Your task to perform on an android device: see creations saved in the google photos Image 0: 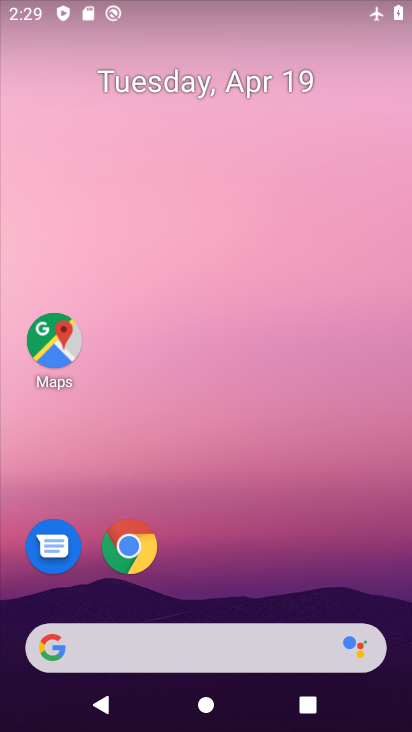
Step 0: drag from (232, 541) to (263, 16)
Your task to perform on an android device: see creations saved in the google photos Image 1: 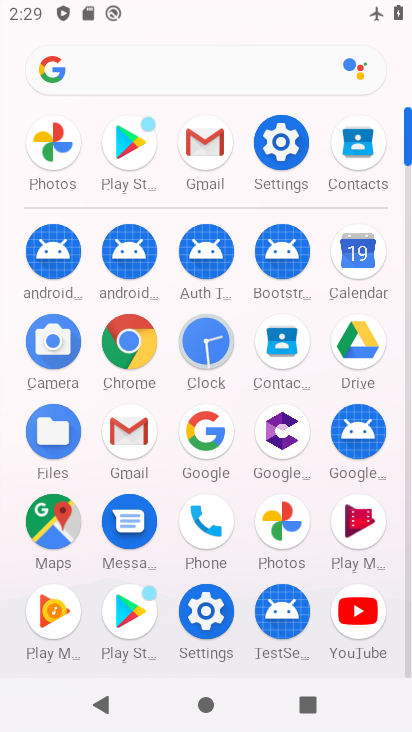
Step 1: drag from (277, 599) to (252, 269)
Your task to perform on an android device: see creations saved in the google photos Image 2: 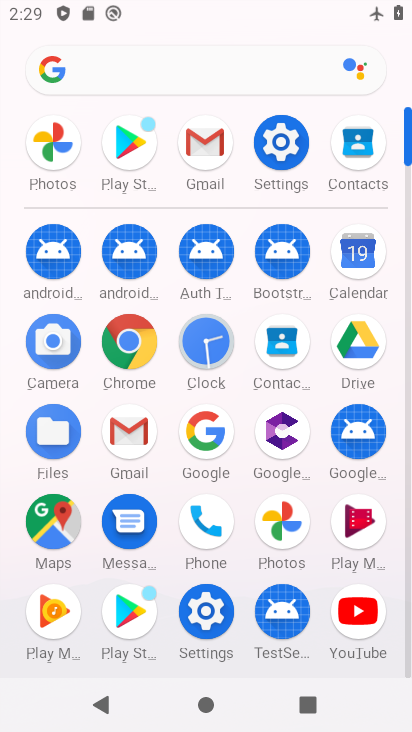
Step 2: click (285, 545)
Your task to perform on an android device: see creations saved in the google photos Image 3: 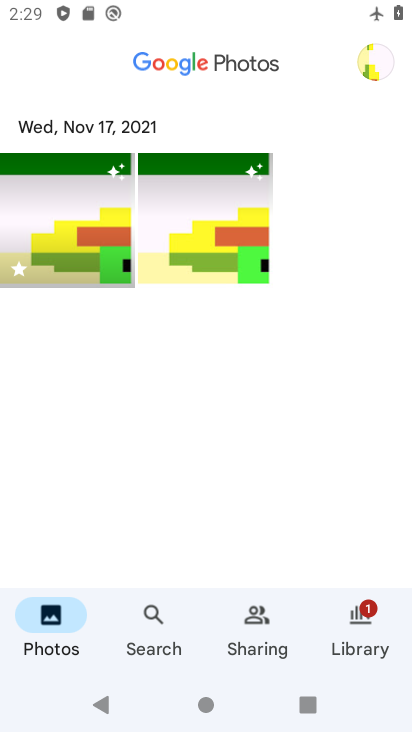
Step 3: click (360, 632)
Your task to perform on an android device: see creations saved in the google photos Image 4: 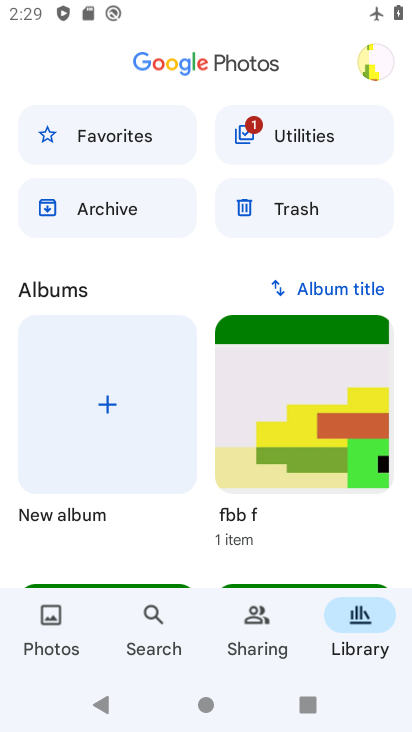
Step 4: task complete